Your task to perform on an android device: check data usage Image 0: 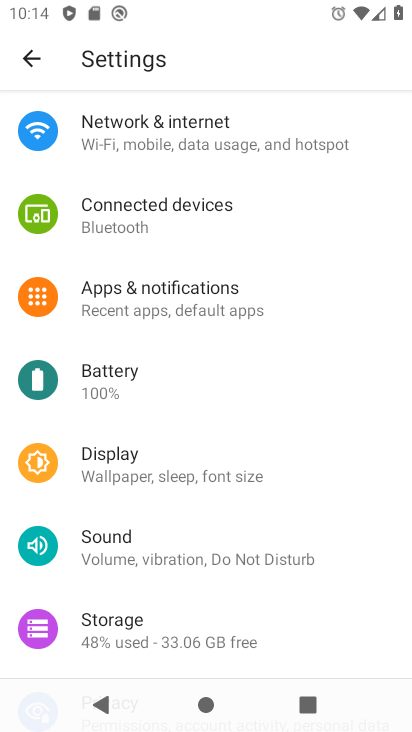
Step 0: click (195, 152)
Your task to perform on an android device: check data usage Image 1: 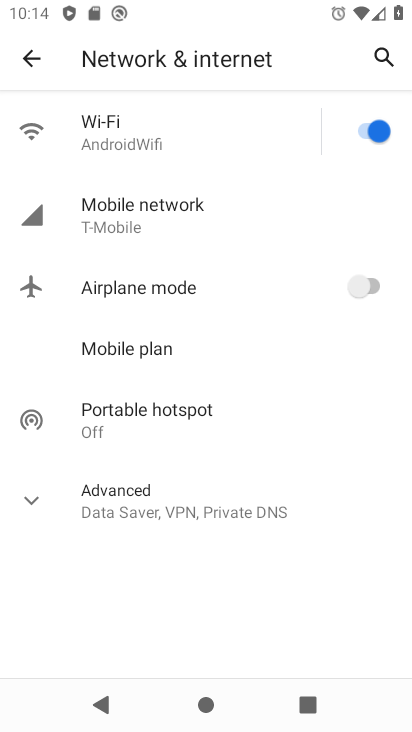
Step 1: click (164, 222)
Your task to perform on an android device: check data usage Image 2: 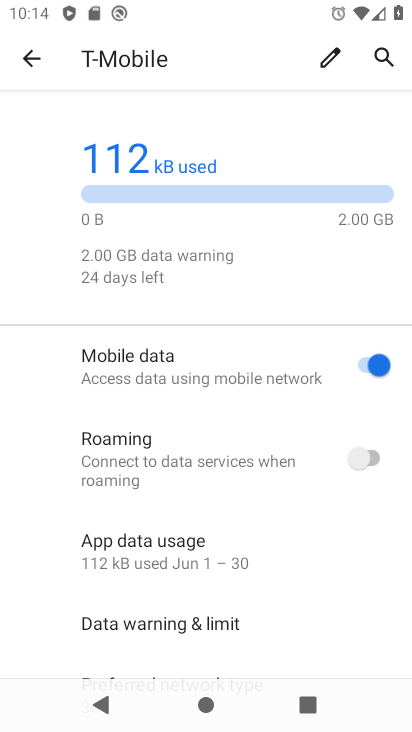
Step 2: click (200, 556)
Your task to perform on an android device: check data usage Image 3: 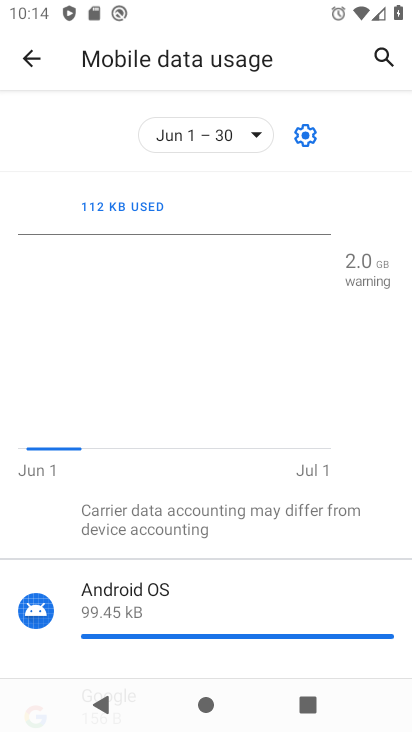
Step 3: task complete